Your task to perform on an android device: Go to privacy settings Image 0: 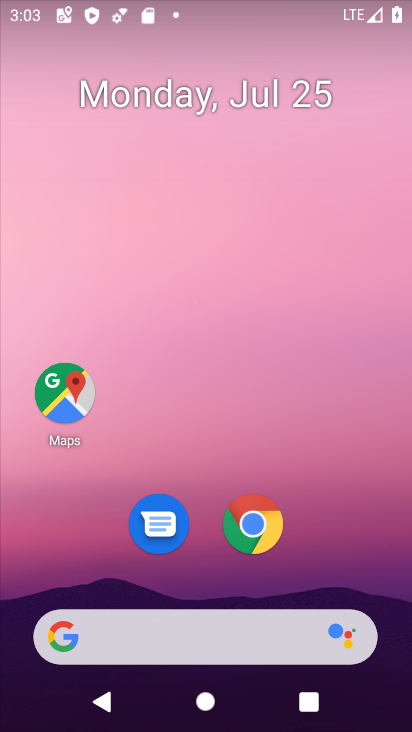
Step 0: drag from (343, 555) to (353, 89)
Your task to perform on an android device: Go to privacy settings Image 1: 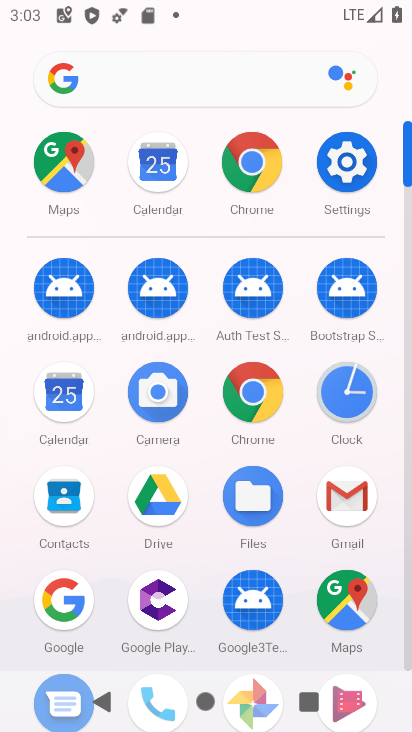
Step 1: click (339, 151)
Your task to perform on an android device: Go to privacy settings Image 2: 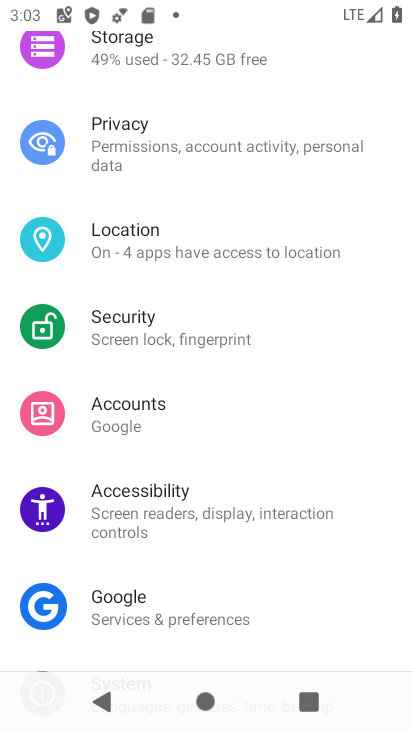
Step 2: click (199, 146)
Your task to perform on an android device: Go to privacy settings Image 3: 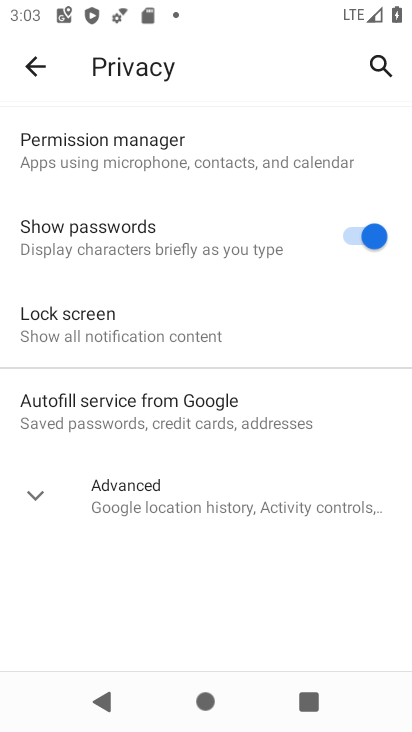
Step 3: task complete